Your task to perform on an android device: see creations saved in the google photos Image 0: 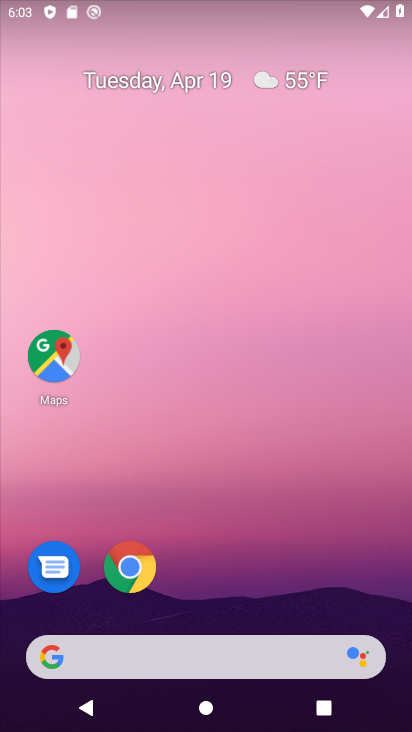
Step 0: drag from (275, 619) to (282, 37)
Your task to perform on an android device: see creations saved in the google photos Image 1: 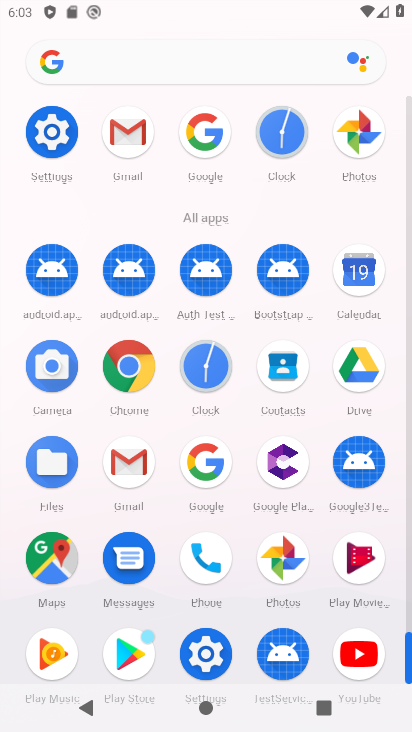
Step 1: click (293, 551)
Your task to perform on an android device: see creations saved in the google photos Image 2: 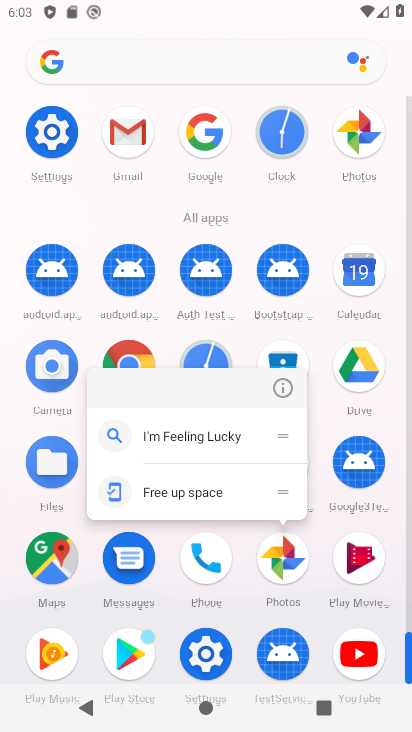
Step 2: click (302, 555)
Your task to perform on an android device: see creations saved in the google photos Image 3: 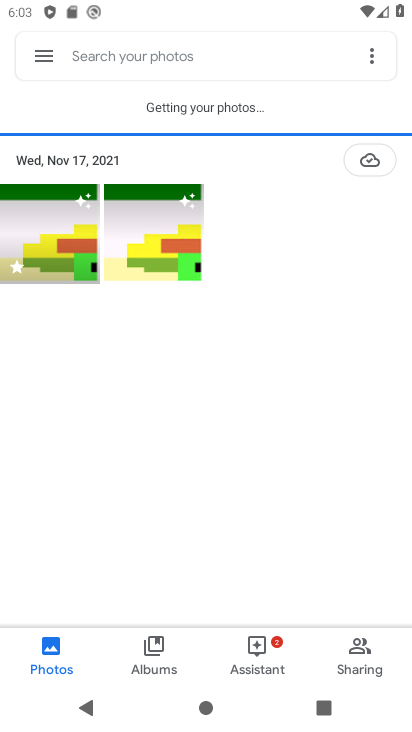
Step 3: click (53, 52)
Your task to perform on an android device: see creations saved in the google photos Image 4: 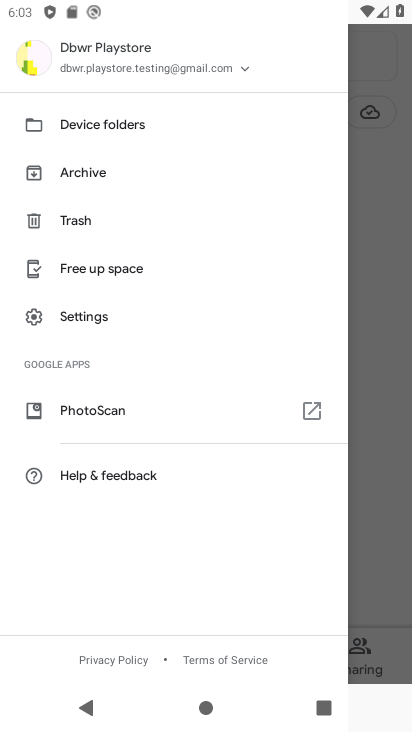
Step 4: click (400, 365)
Your task to perform on an android device: see creations saved in the google photos Image 5: 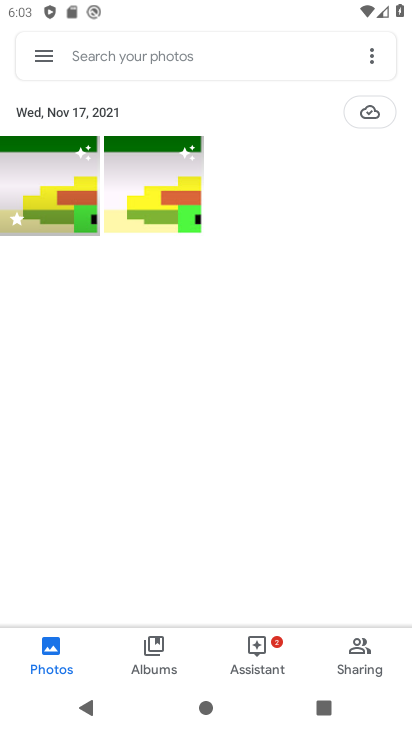
Step 5: click (193, 58)
Your task to perform on an android device: see creations saved in the google photos Image 6: 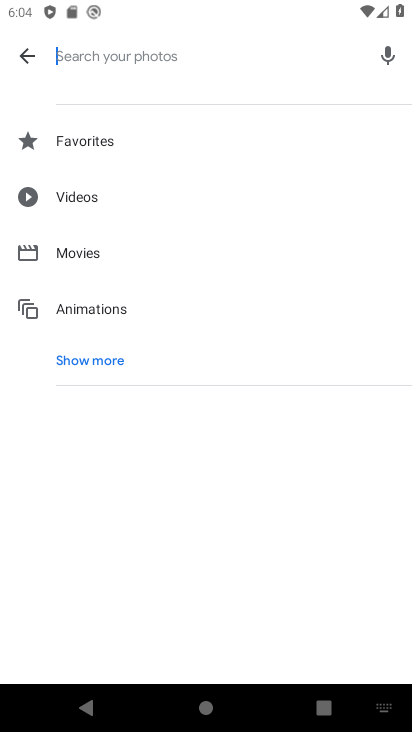
Step 6: type "creations"
Your task to perform on an android device: see creations saved in the google photos Image 7: 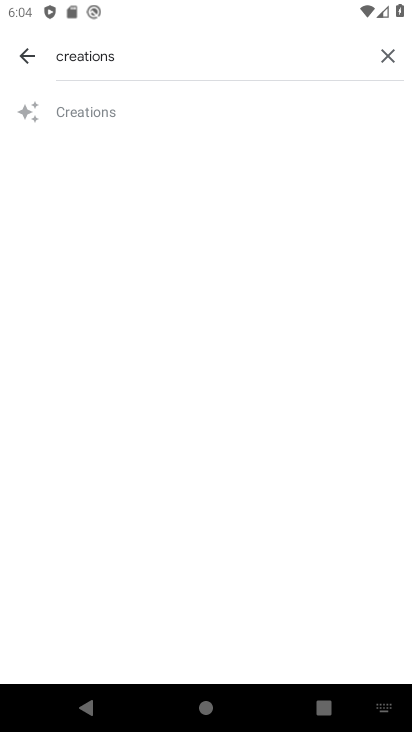
Step 7: click (118, 115)
Your task to perform on an android device: see creations saved in the google photos Image 8: 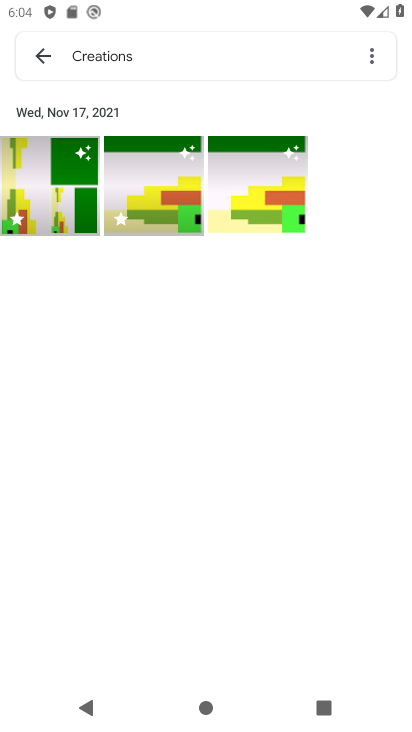
Step 8: task complete